Your task to perform on an android device: change alarm snooze length Image 0: 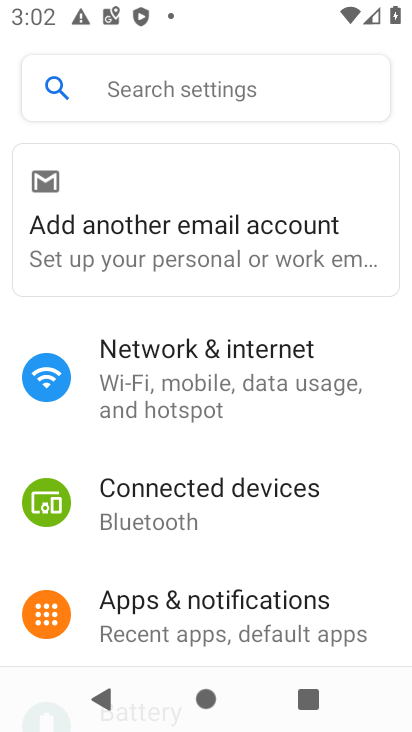
Step 0: press home button
Your task to perform on an android device: change alarm snooze length Image 1: 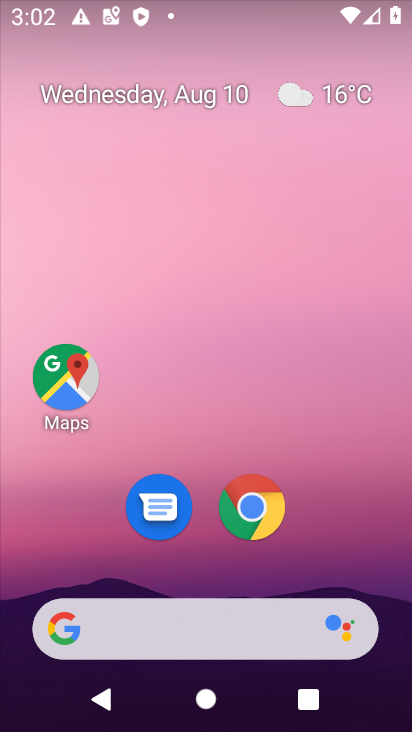
Step 1: drag from (367, 524) to (344, 0)
Your task to perform on an android device: change alarm snooze length Image 2: 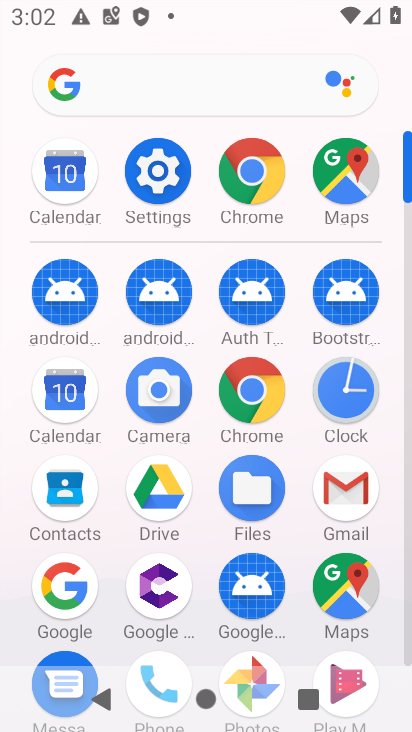
Step 2: click (346, 395)
Your task to perform on an android device: change alarm snooze length Image 3: 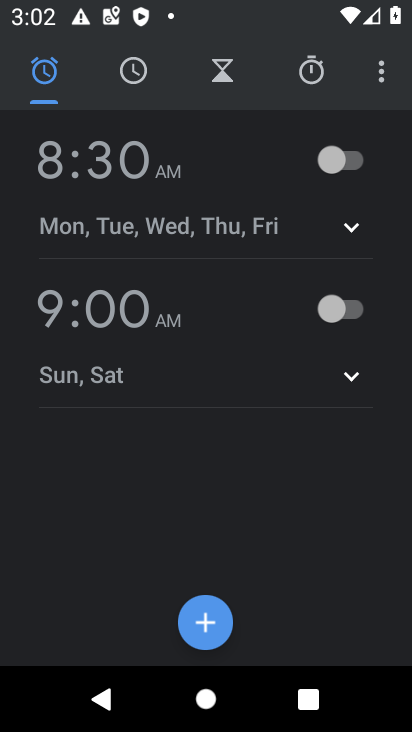
Step 3: click (389, 61)
Your task to perform on an android device: change alarm snooze length Image 4: 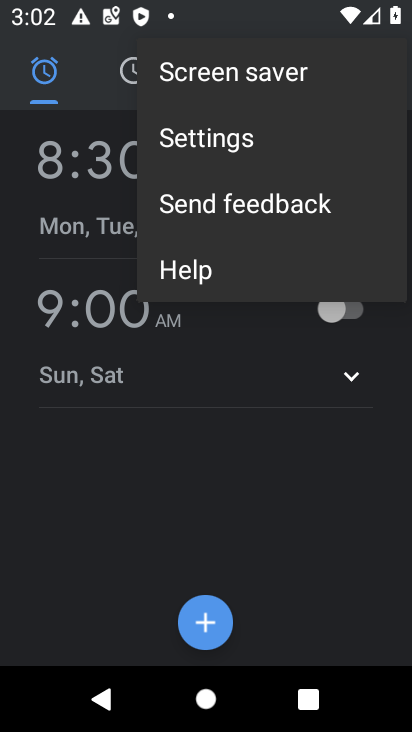
Step 4: click (236, 144)
Your task to perform on an android device: change alarm snooze length Image 5: 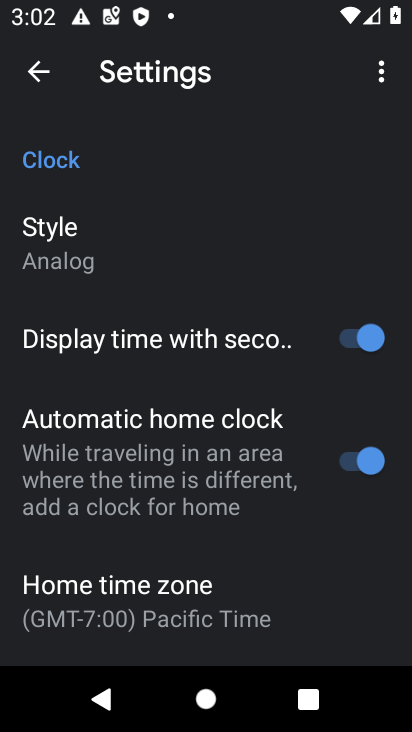
Step 5: drag from (203, 558) to (243, 168)
Your task to perform on an android device: change alarm snooze length Image 6: 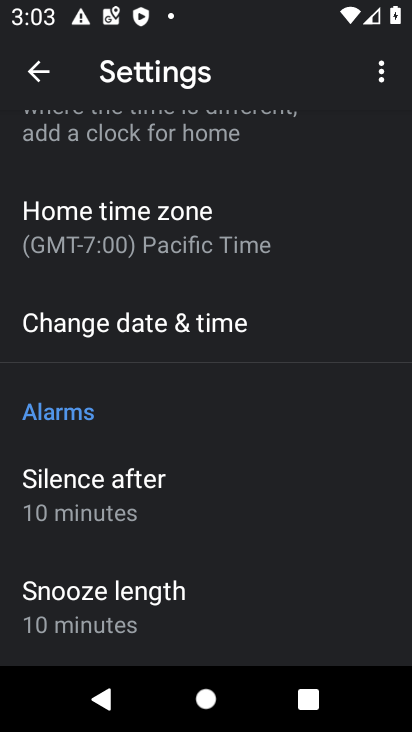
Step 6: click (148, 602)
Your task to perform on an android device: change alarm snooze length Image 7: 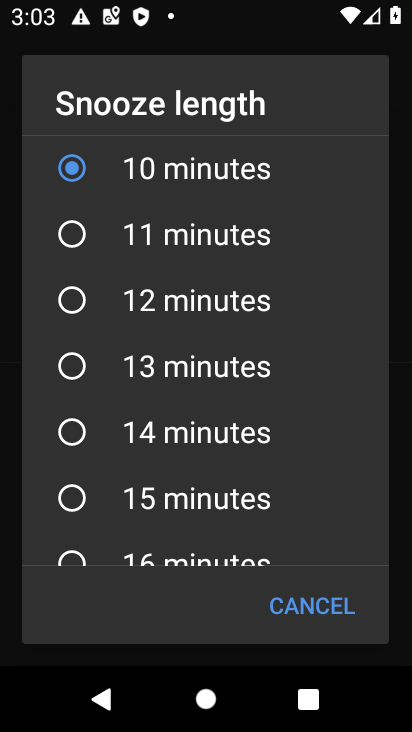
Step 7: click (209, 230)
Your task to perform on an android device: change alarm snooze length Image 8: 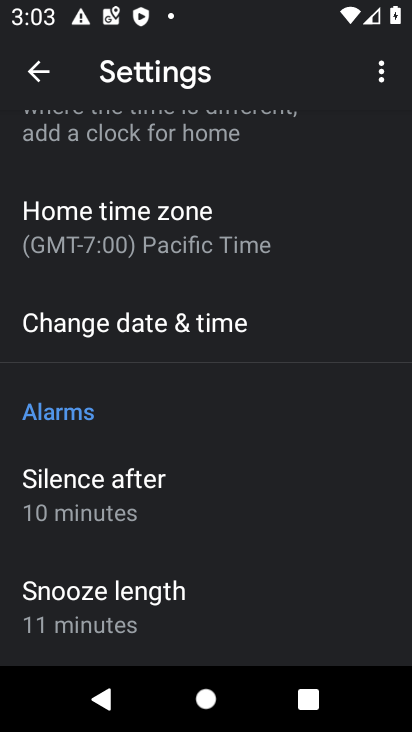
Step 8: task complete